Your task to perform on an android device: Open battery settings Image 0: 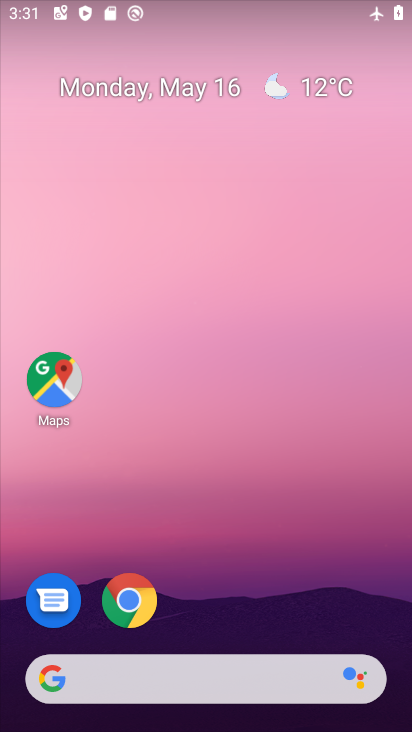
Step 0: drag from (215, 648) to (90, 0)
Your task to perform on an android device: Open battery settings Image 1: 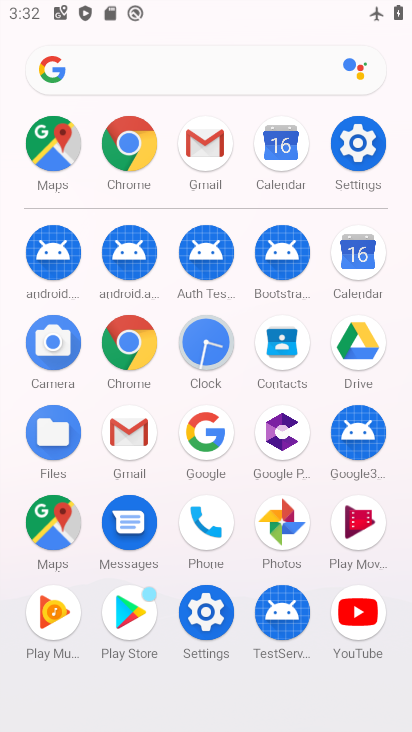
Step 1: click (211, 601)
Your task to perform on an android device: Open battery settings Image 2: 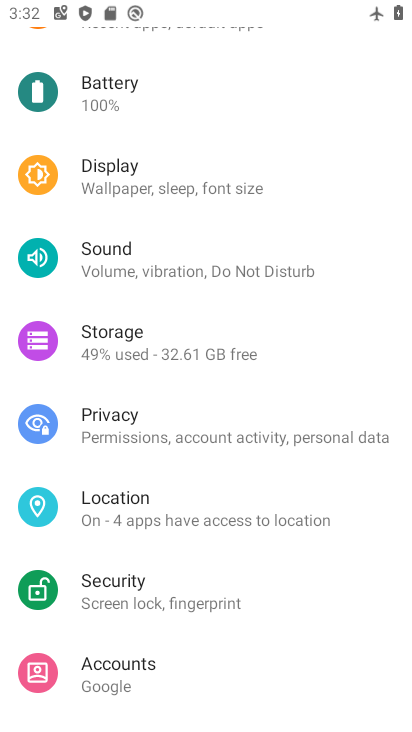
Step 2: click (110, 86)
Your task to perform on an android device: Open battery settings Image 3: 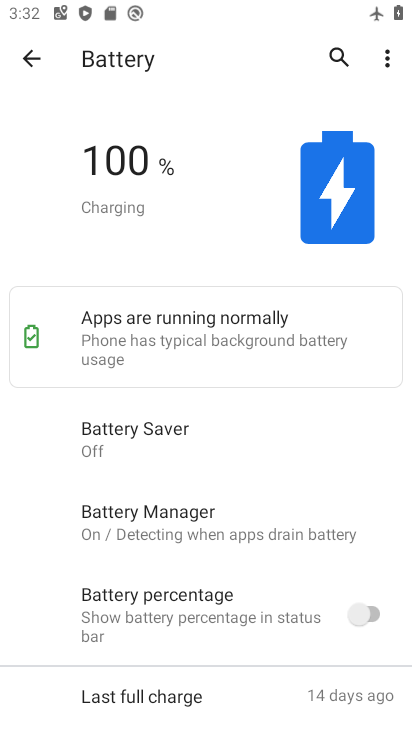
Step 3: task complete